Your task to perform on an android device: Open privacy settings Image 0: 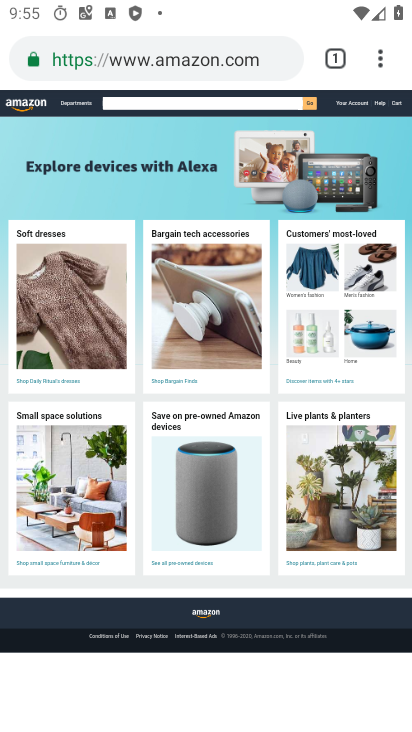
Step 0: press home button
Your task to perform on an android device: Open privacy settings Image 1: 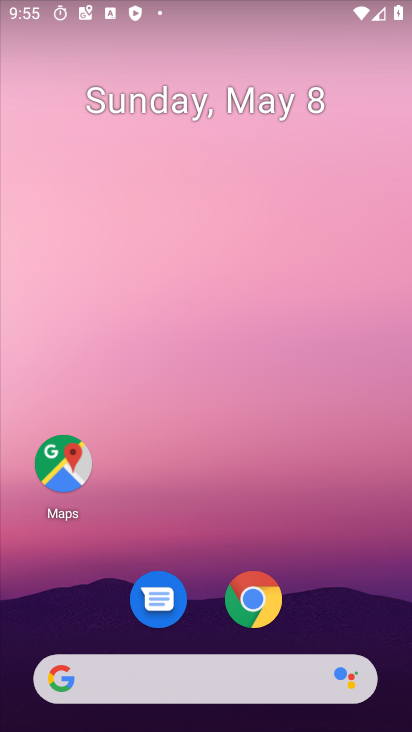
Step 1: drag from (199, 629) to (221, 162)
Your task to perform on an android device: Open privacy settings Image 2: 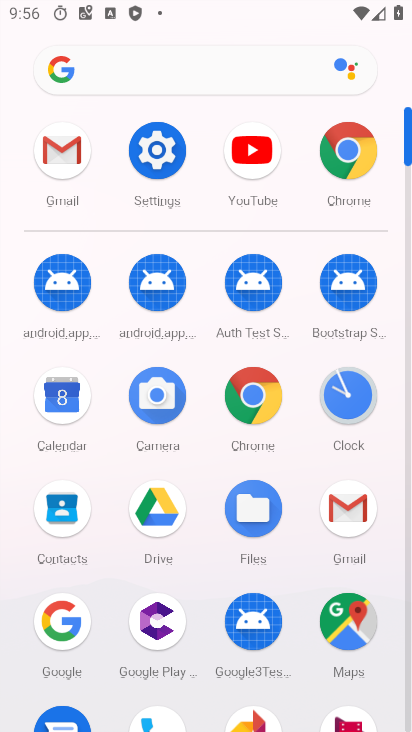
Step 2: click (178, 168)
Your task to perform on an android device: Open privacy settings Image 3: 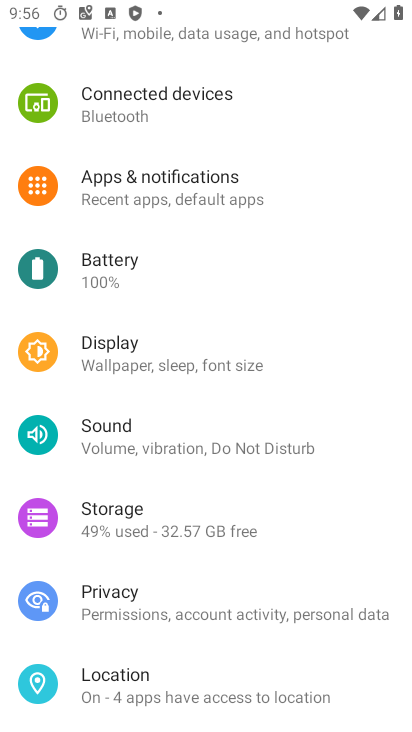
Step 3: click (58, 628)
Your task to perform on an android device: Open privacy settings Image 4: 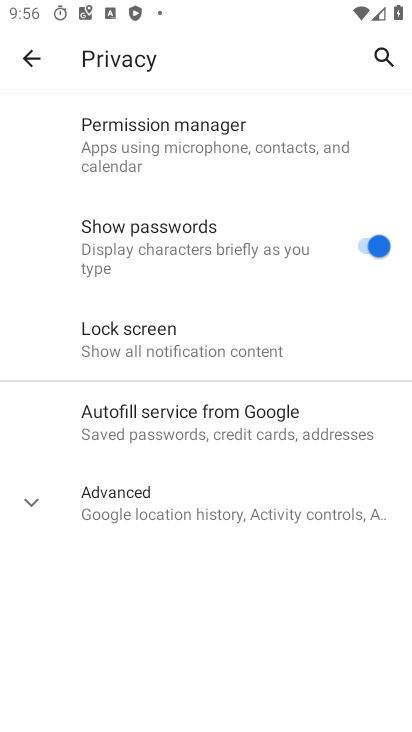
Step 4: task complete